Your task to perform on an android device: delete the emails in spam in the gmail app Image 0: 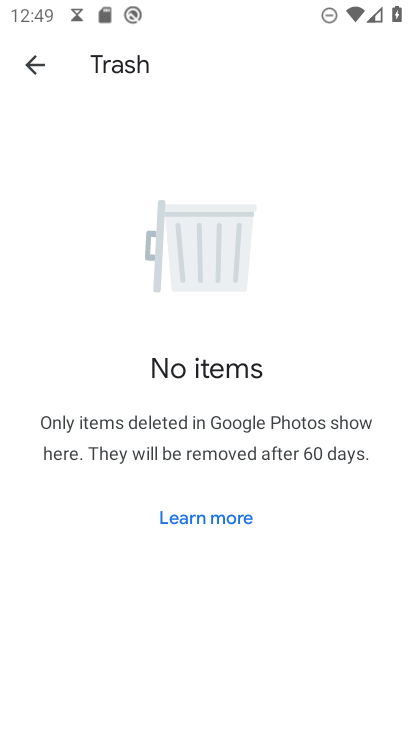
Step 0: press home button
Your task to perform on an android device: delete the emails in spam in the gmail app Image 1: 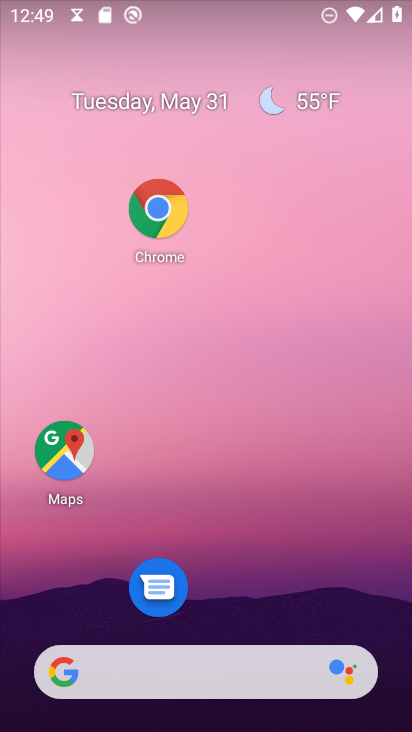
Step 1: drag from (331, 625) to (290, 170)
Your task to perform on an android device: delete the emails in spam in the gmail app Image 2: 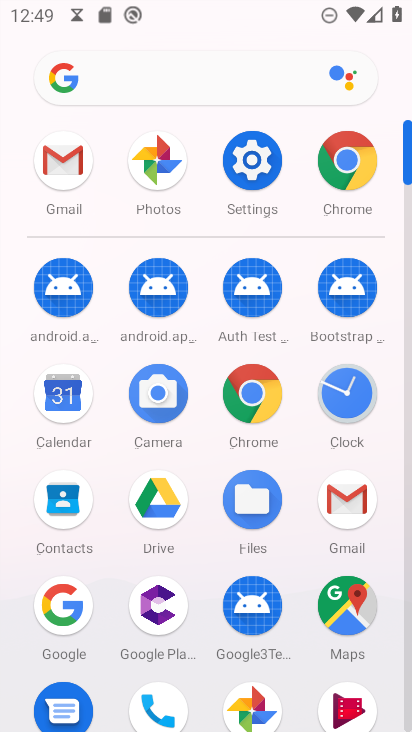
Step 2: click (347, 511)
Your task to perform on an android device: delete the emails in spam in the gmail app Image 3: 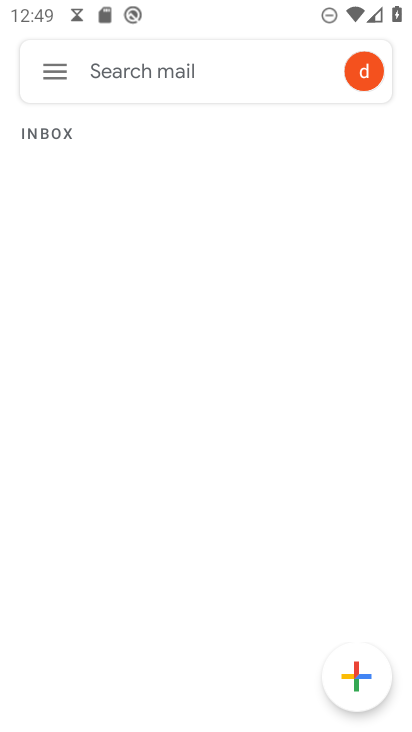
Step 3: click (49, 74)
Your task to perform on an android device: delete the emails in spam in the gmail app Image 4: 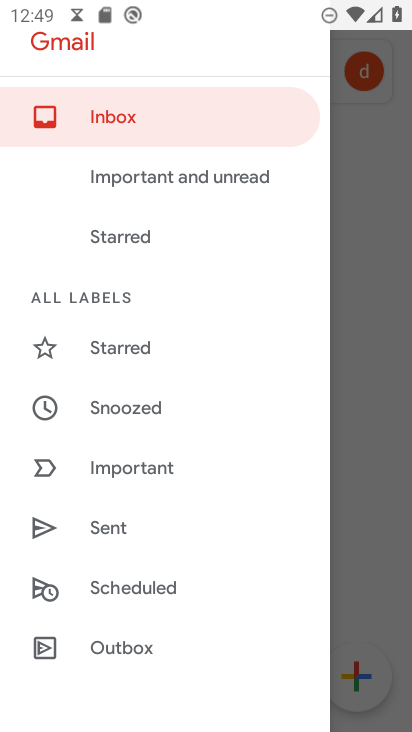
Step 4: drag from (115, 627) to (112, 317)
Your task to perform on an android device: delete the emails in spam in the gmail app Image 5: 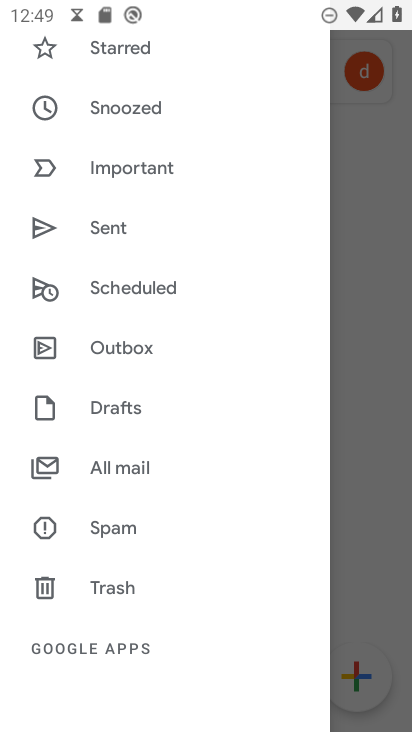
Step 5: click (114, 525)
Your task to perform on an android device: delete the emails in spam in the gmail app Image 6: 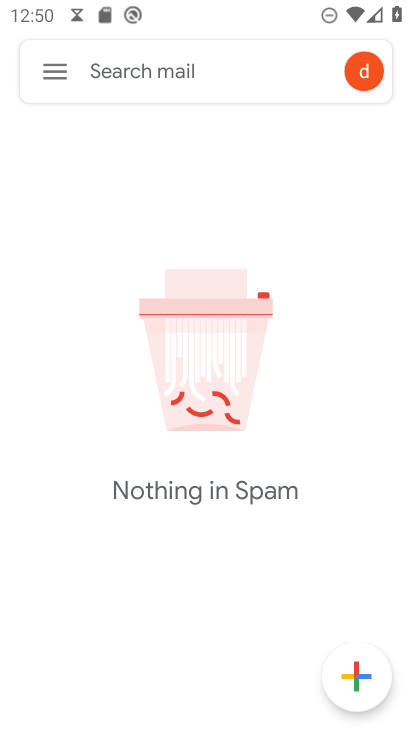
Step 6: task complete